Your task to perform on an android device: What's the weather going to be this weekend? Image 0: 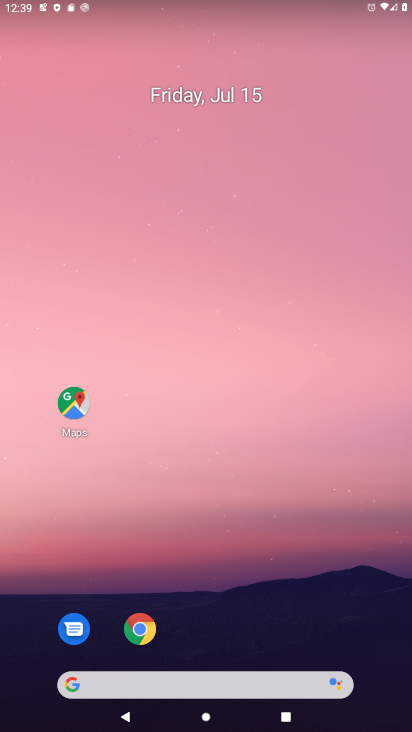
Step 0: click (70, 682)
Your task to perform on an android device: What's the weather going to be this weekend? Image 1: 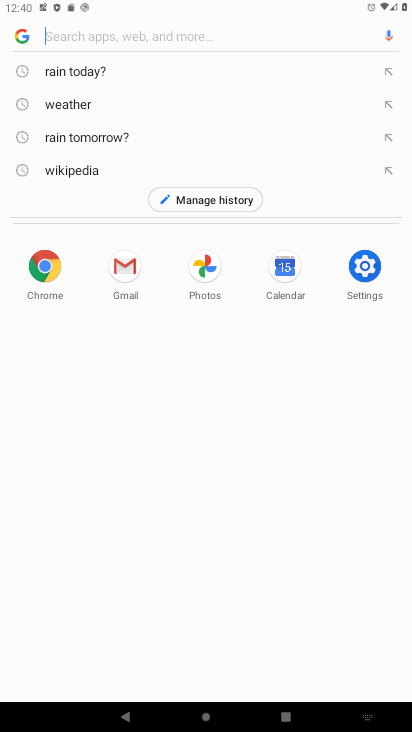
Step 1: type "weather going to be this weekend?"
Your task to perform on an android device: What's the weather going to be this weekend? Image 2: 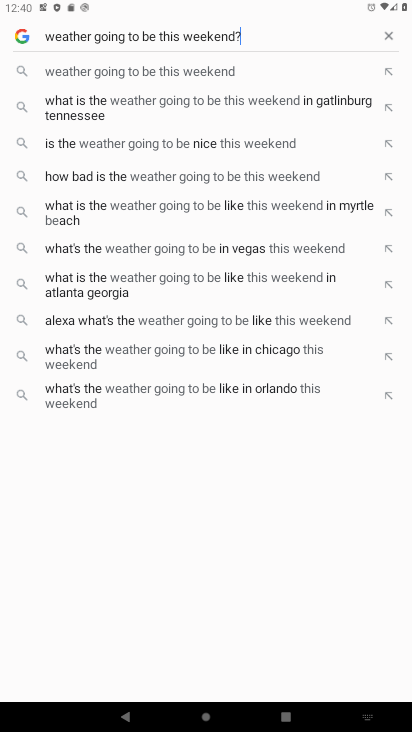
Step 2: press enter
Your task to perform on an android device: What's the weather going to be this weekend? Image 3: 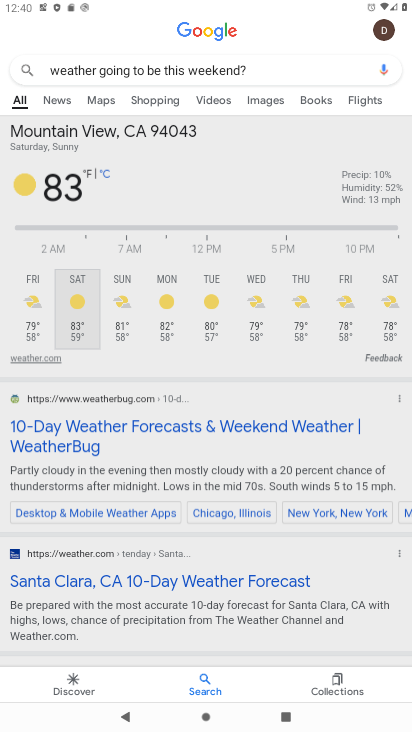
Step 3: task complete